Your task to perform on an android device: Do I have any events this weekend? Image 0: 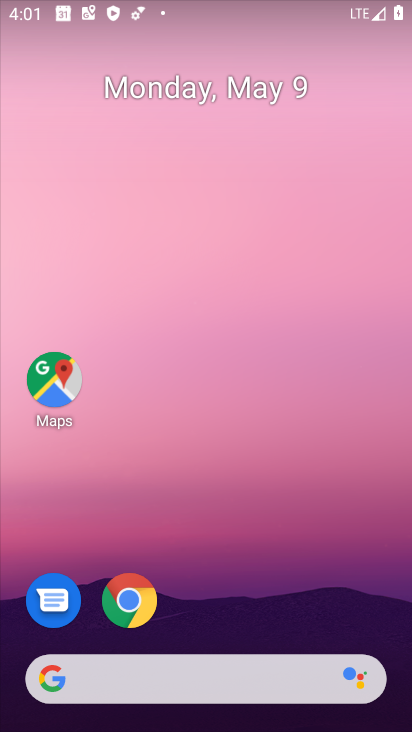
Step 0: drag from (331, 513) to (322, 19)
Your task to perform on an android device: Do I have any events this weekend? Image 1: 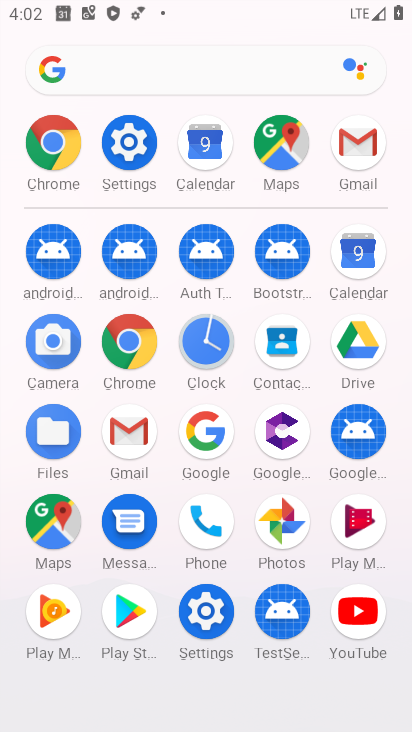
Step 1: drag from (288, 399) to (292, 257)
Your task to perform on an android device: Do I have any events this weekend? Image 2: 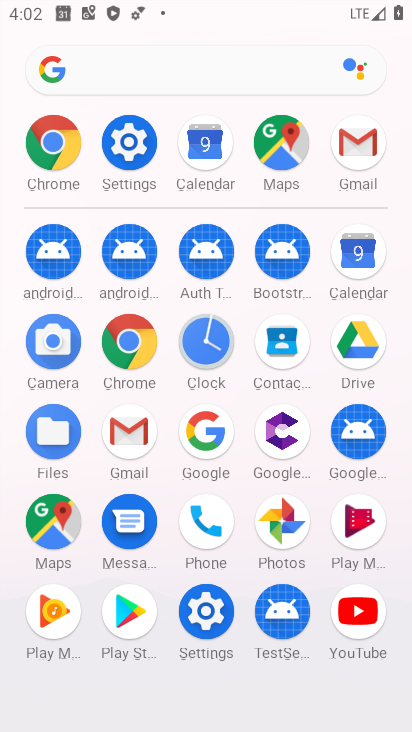
Step 2: click (375, 260)
Your task to perform on an android device: Do I have any events this weekend? Image 3: 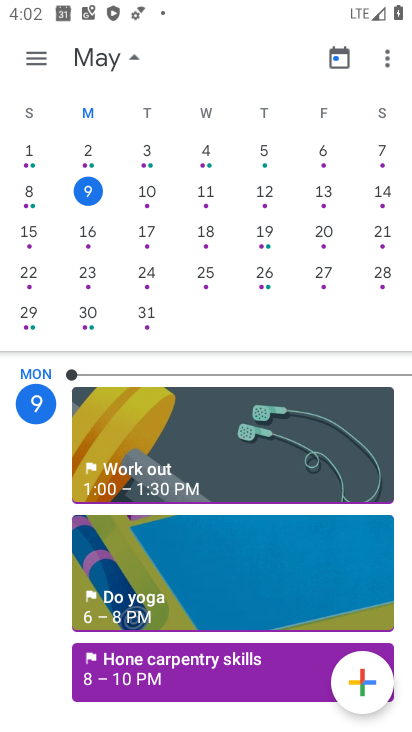
Step 3: click (379, 194)
Your task to perform on an android device: Do I have any events this weekend? Image 4: 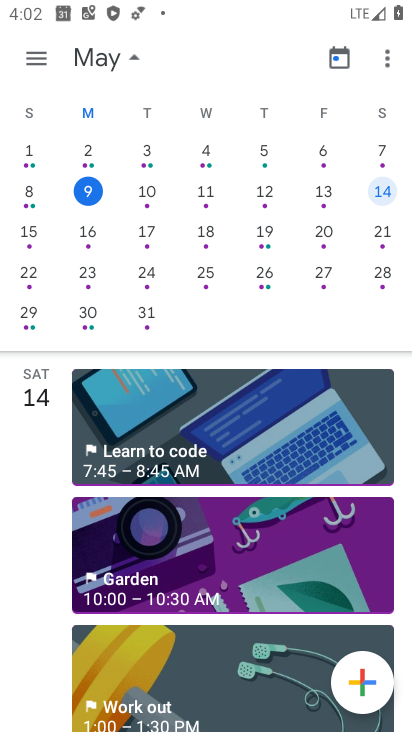
Step 4: task complete